Your task to perform on an android device: Toggle notifications for the Google Photos app Image 0: 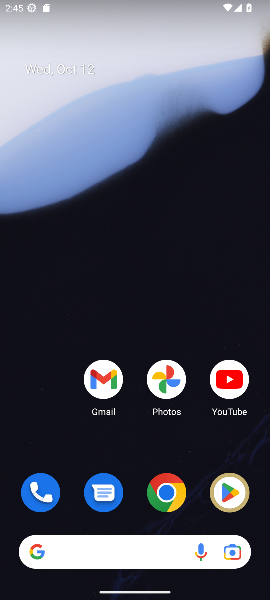
Step 0: click (164, 385)
Your task to perform on an android device: Toggle notifications for the Google Photos app Image 1: 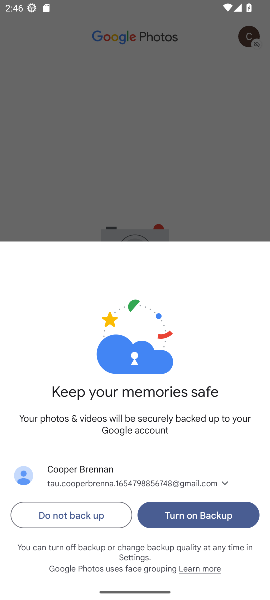
Step 1: click (83, 519)
Your task to perform on an android device: Toggle notifications for the Google Photos app Image 2: 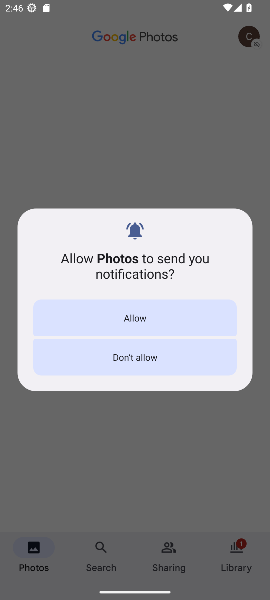
Step 2: click (131, 358)
Your task to perform on an android device: Toggle notifications for the Google Photos app Image 3: 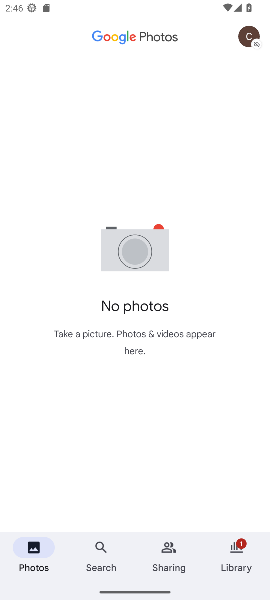
Step 3: click (249, 34)
Your task to perform on an android device: Toggle notifications for the Google Photos app Image 4: 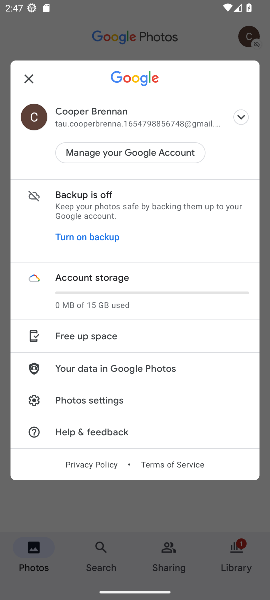
Step 4: click (74, 401)
Your task to perform on an android device: Toggle notifications for the Google Photos app Image 5: 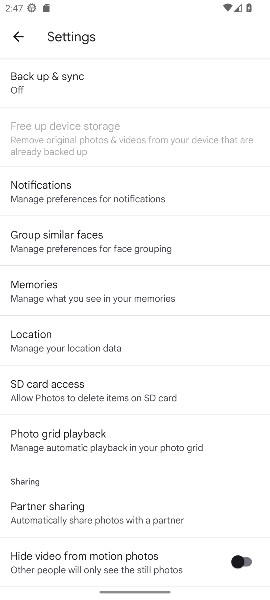
Step 5: click (48, 196)
Your task to perform on an android device: Toggle notifications for the Google Photos app Image 6: 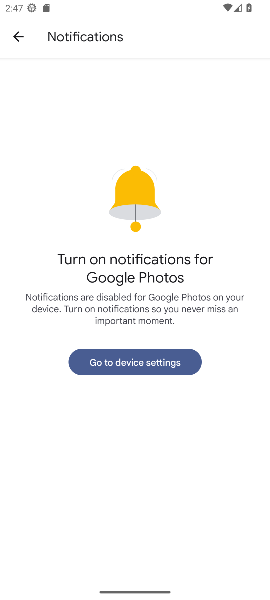
Step 6: click (111, 275)
Your task to perform on an android device: Toggle notifications for the Google Photos app Image 7: 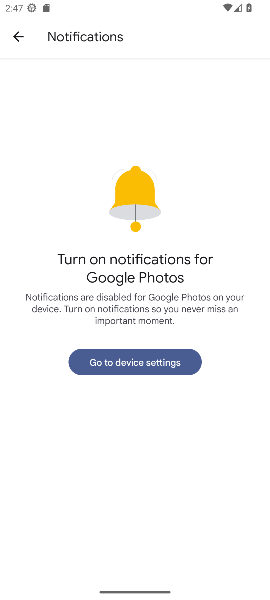
Step 7: click (114, 364)
Your task to perform on an android device: Toggle notifications for the Google Photos app Image 8: 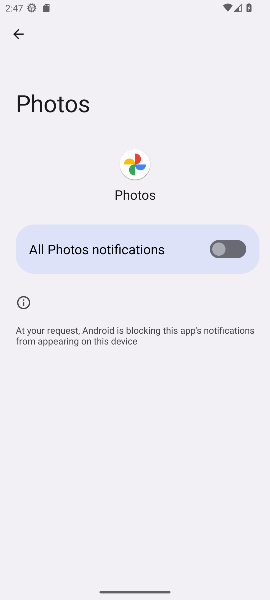
Step 8: click (219, 251)
Your task to perform on an android device: Toggle notifications for the Google Photos app Image 9: 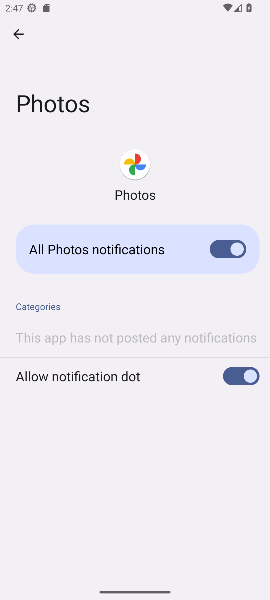
Step 9: task complete